Your task to perform on an android device: turn on improve location accuracy Image 0: 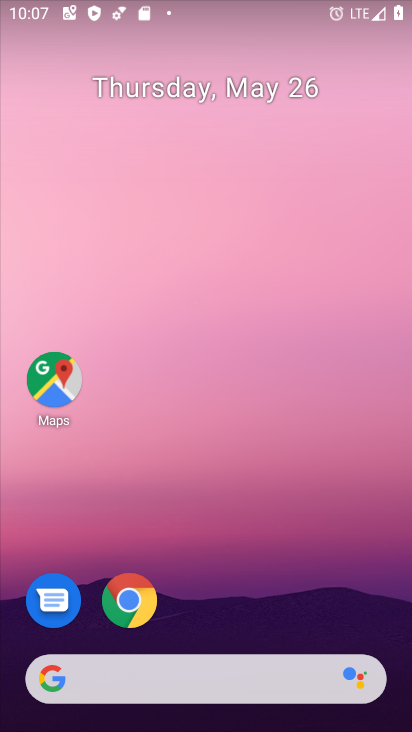
Step 0: drag from (200, 615) to (303, 0)
Your task to perform on an android device: turn on improve location accuracy Image 1: 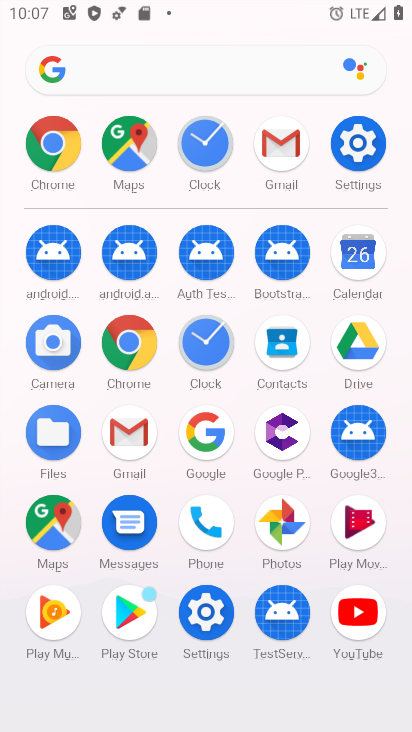
Step 1: click (351, 128)
Your task to perform on an android device: turn on improve location accuracy Image 2: 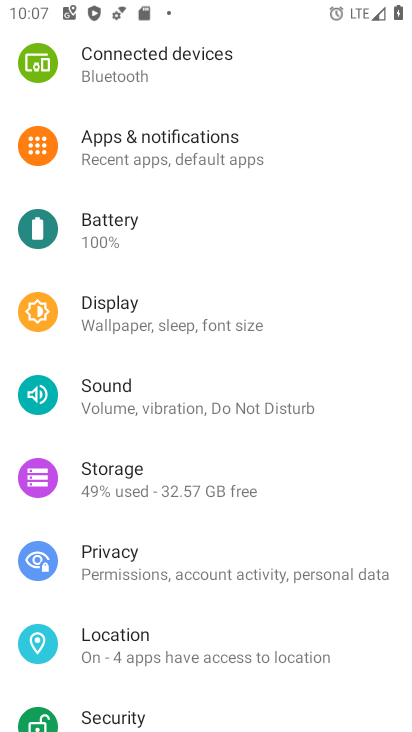
Step 2: drag from (219, 510) to (307, 193)
Your task to perform on an android device: turn on improve location accuracy Image 3: 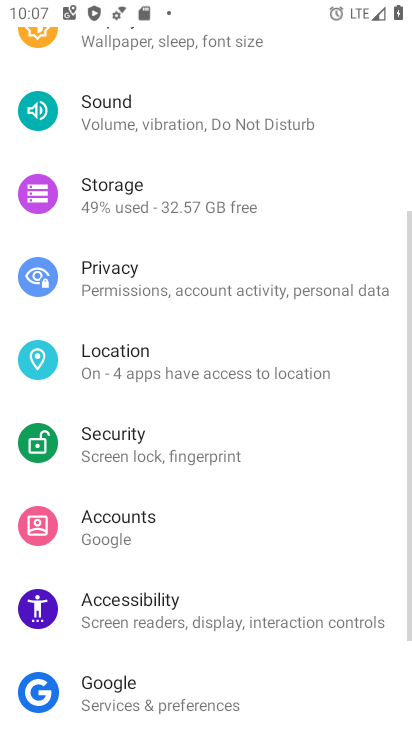
Step 3: click (307, 193)
Your task to perform on an android device: turn on improve location accuracy Image 4: 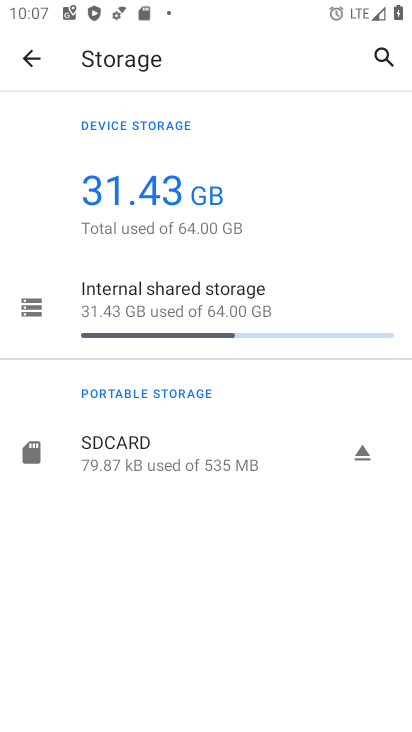
Step 4: click (27, 59)
Your task to perform on an android device: turn on improve location accuracy Image 5: 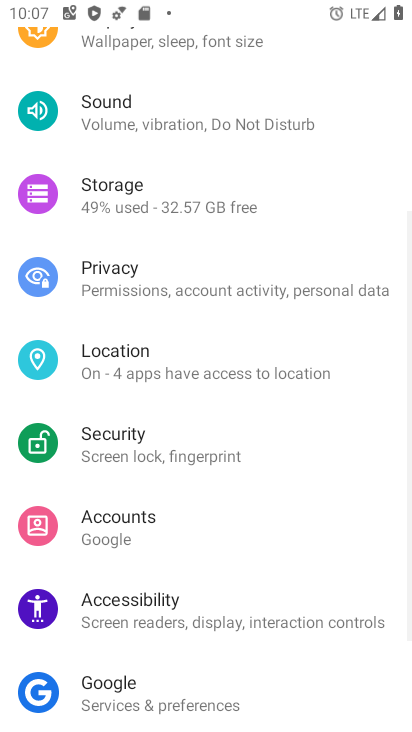
Step 5: click (210, 377)
Your task to perform on an android device: turn on improve location accuracy Image 6: 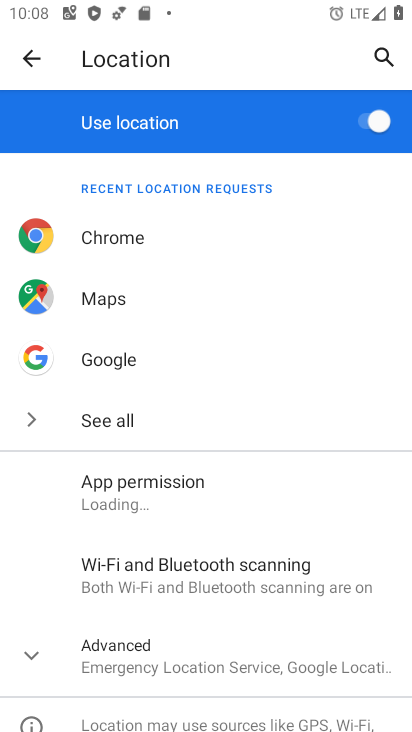
Step 6: click (221, 674)
Your task to perform on an android device: turn on improve location accuracy Image 7: 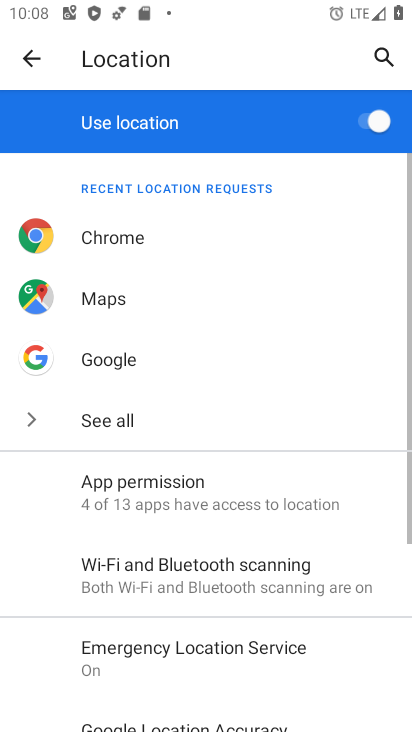
Step 7: drag from (229, 664) to (235, 260)
Your task to perform on an android device: turn on improve location accuracy Image 8: 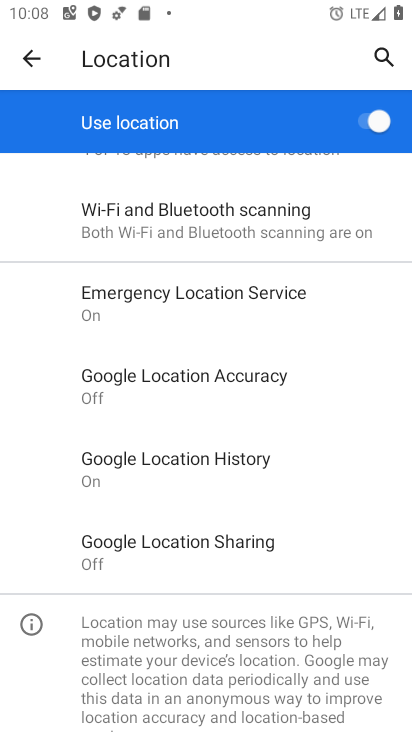
Step 8: click (208, 377)
Your task to perform on an android device: turn on improve location accuracy Image 9: 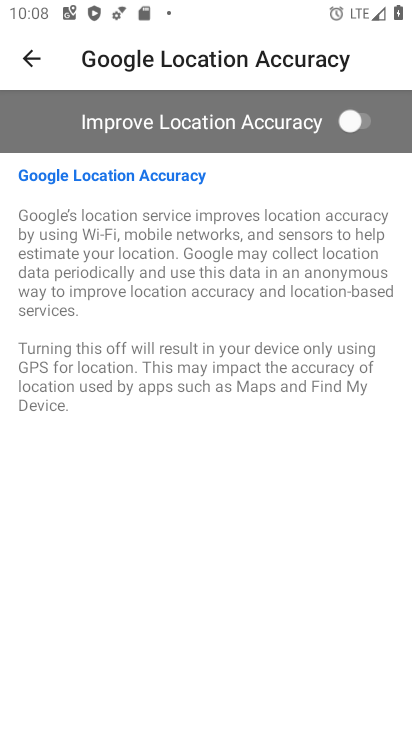
Step 9: click (370, 122)
Your task to perform on an android device: turn on improve location accuracy Image 10: 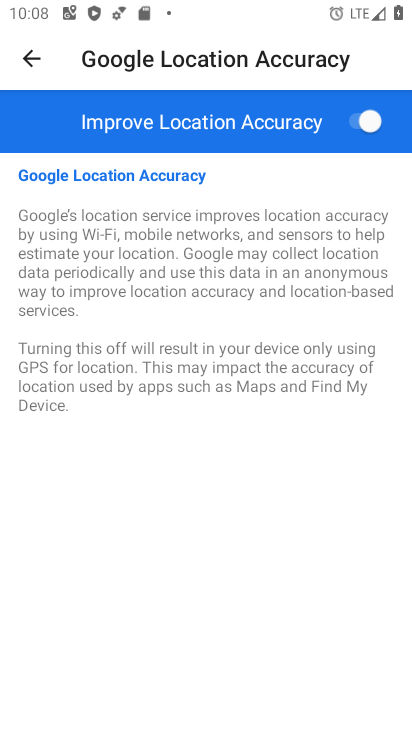
Step 10: task complete